Your task to perform on an android device: delete browsing data in the chrome app Image 0: 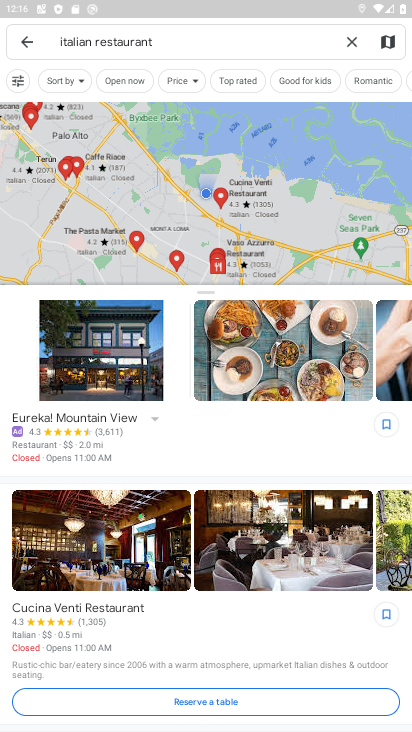
Step 0: press back button
Your task to perform on an android device: delete browsing data in the chrome app Image 1: 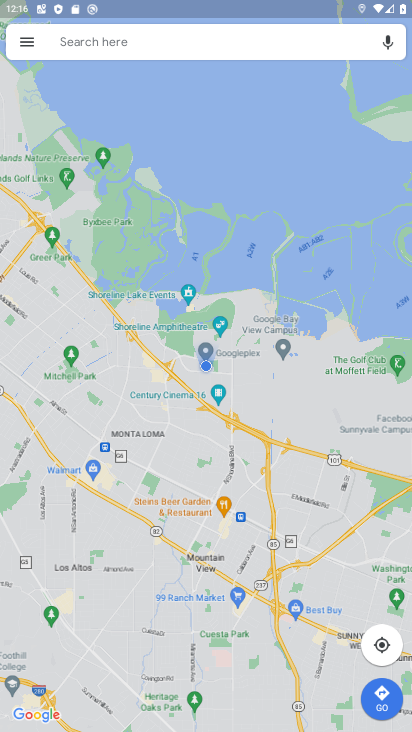
Step 1: press home button
Your task to perform on an android device: delete browsing data in the chrome app Image 2: 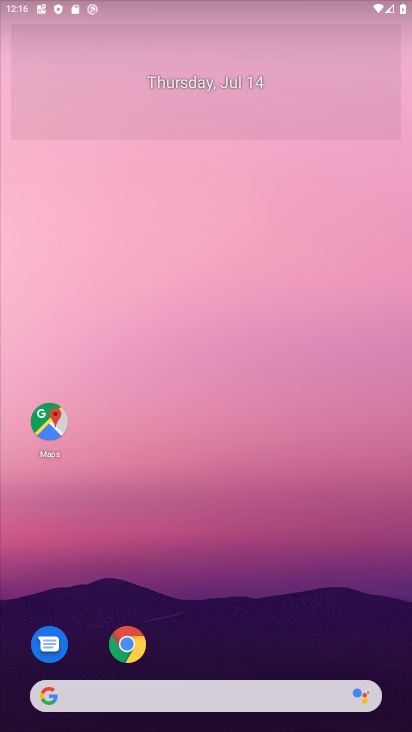
Step 2: drag from (286, 642) to (338, 24)
Your task to perform on an android device: delete browsing data in the chrome app Image 3: 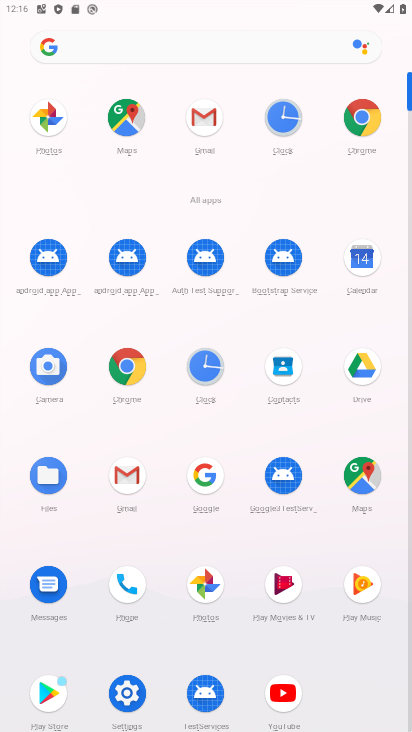
Step 3: click (130, 353)
Your task to perform on an android device: delete browsing data in the chrome app Image 4: 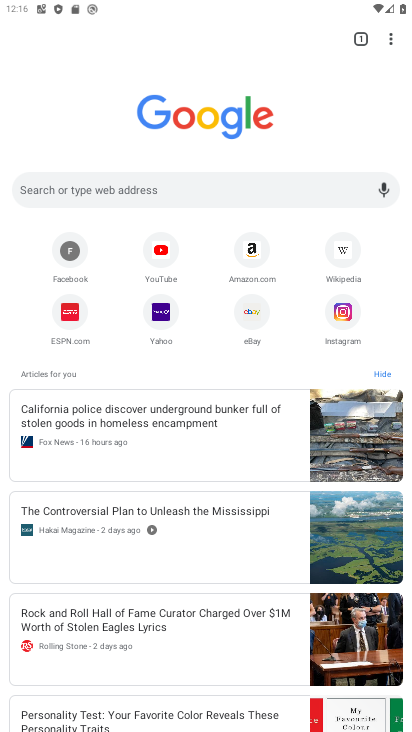
Step 4: task complete